Your task to perform on an android device: Go to display settings Image 0: 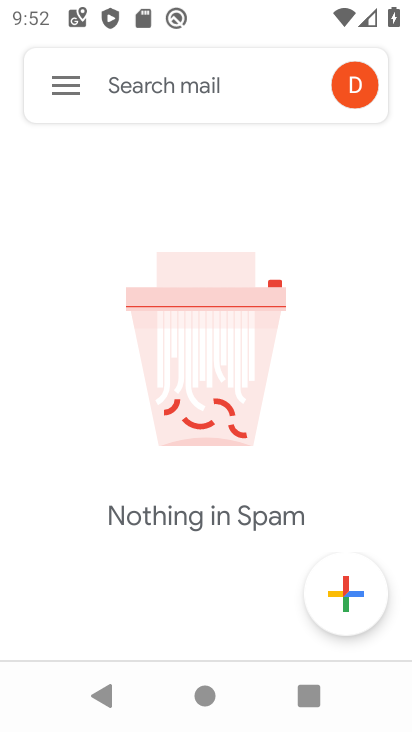
Step 0: press home button
Your task to perform on an android device: Go to display settings Image 1: 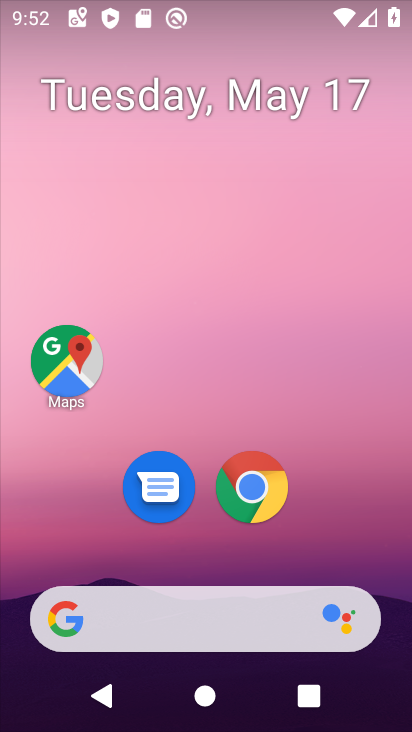
Step 1: drag from (268, 645) to (229, 199)
Your task to perform on an android device: Go to display settings Image 2: 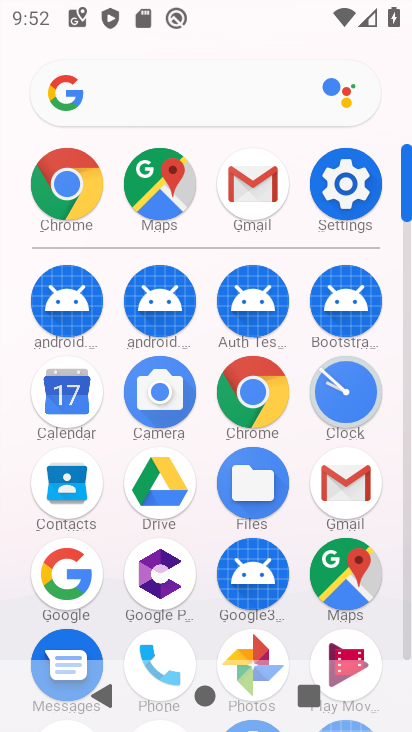
Step 2: click (335, 200)
Your task to perform on an android device: Go to display settings Image 3: 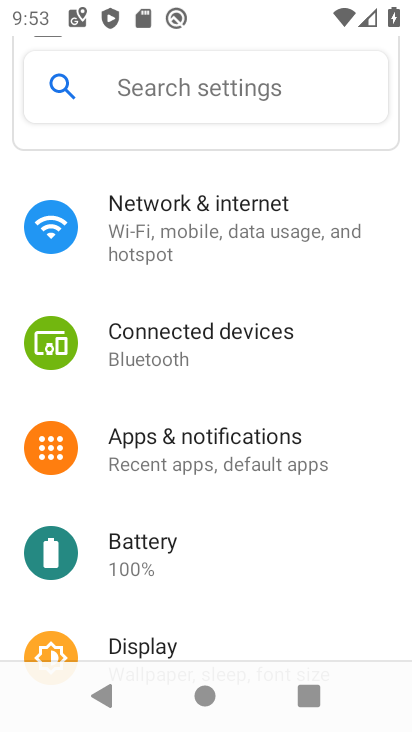
Step 3: click (177, 636)
Your task to perform on an android device: Go to display settings Image 4: 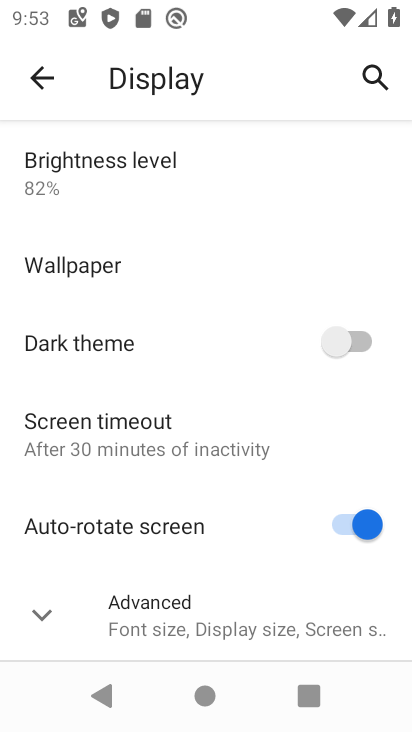
Step 4: task complete